Your task to perform on an android device: uninstall "Facebook Lite" Image 0: 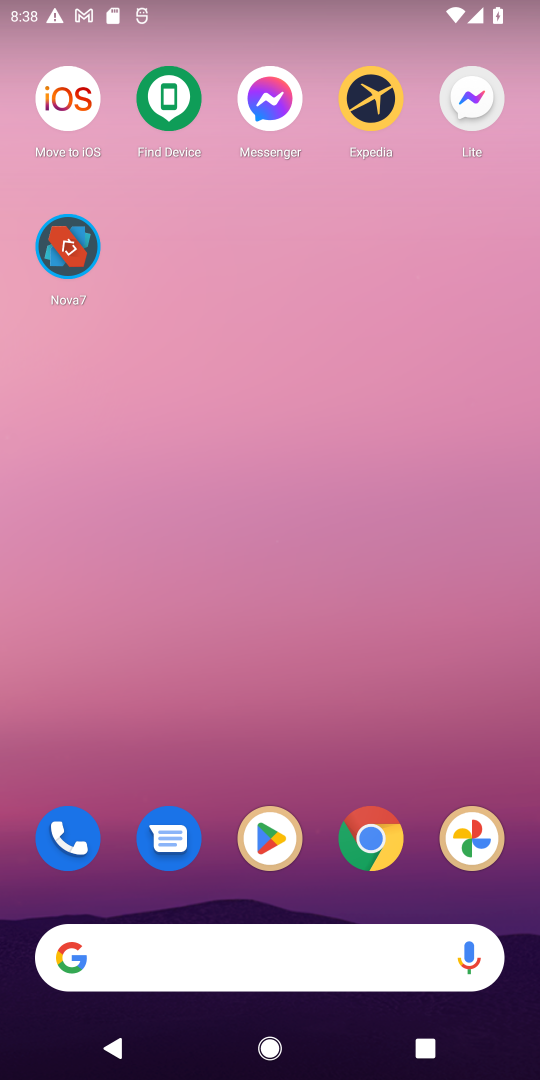
Step 0: press home button
Your task to perform on an android device: uninstall "Facebook Lite" Image 1: 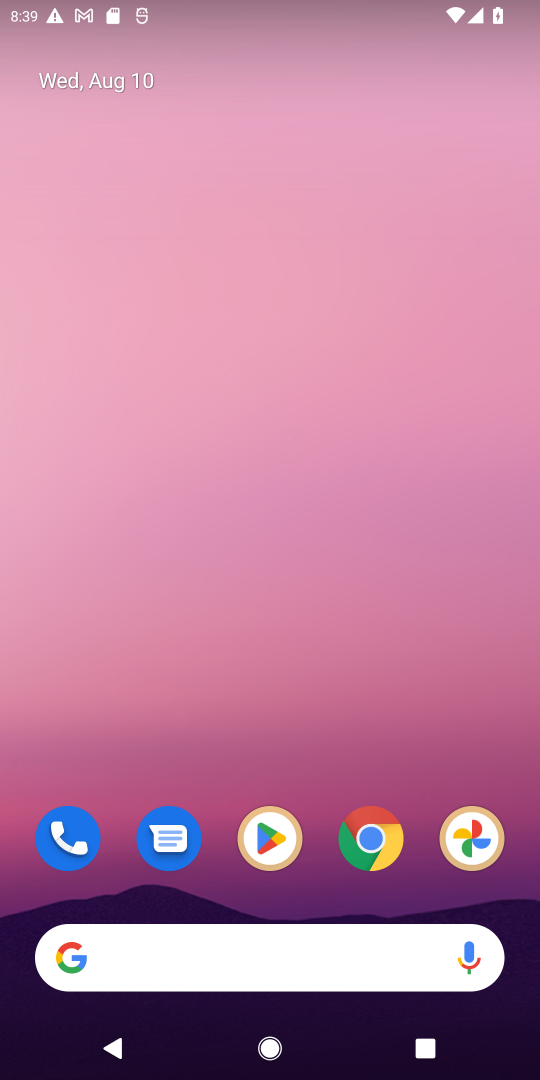
Step 1: click (265, 830)
Your task to perform on an android device: uninstall "Facebook Lite" Image 2: 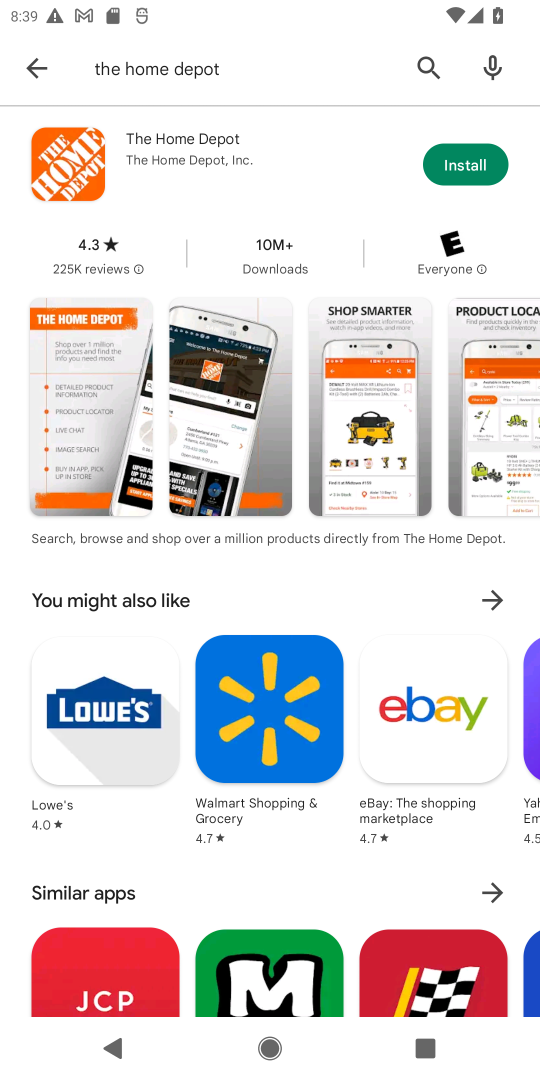
Step 2: click (422, 61)
Your task to perform on an android device: uninstall "Facebook Lite" Image 3: 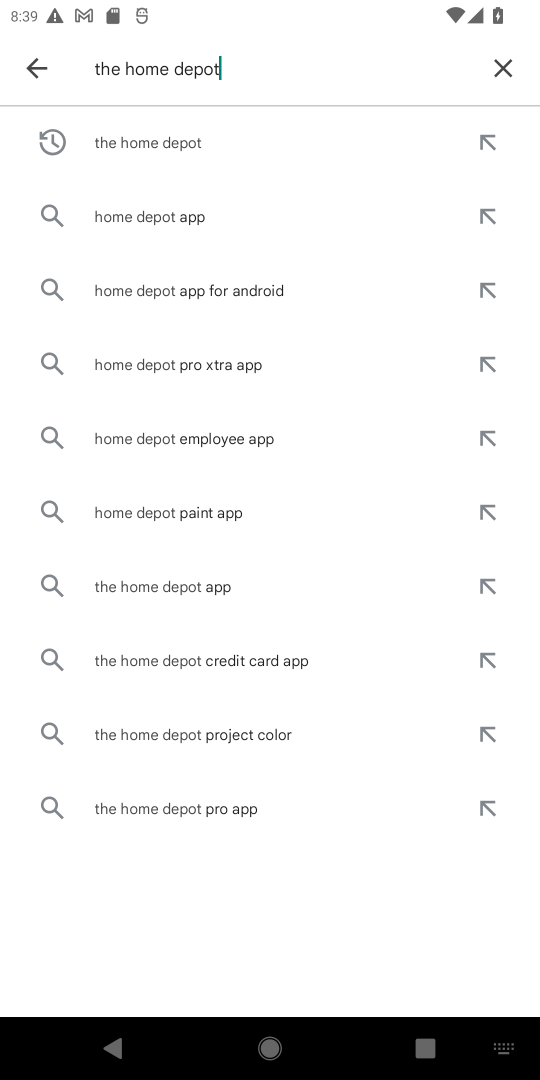
Step 3: click (504, 67)
Your task to perform on an android device: uninstall "Facebook Lite" Image 4: 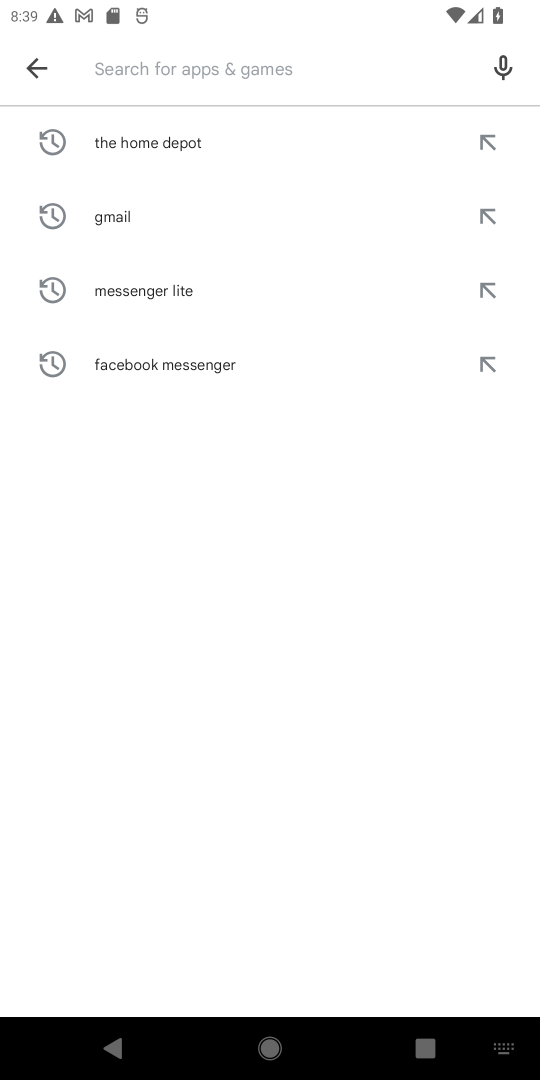
Step 4: type "Facebook Lite"
Your task to perform on an android device: uninstall "Facebook Lite" Image 5: 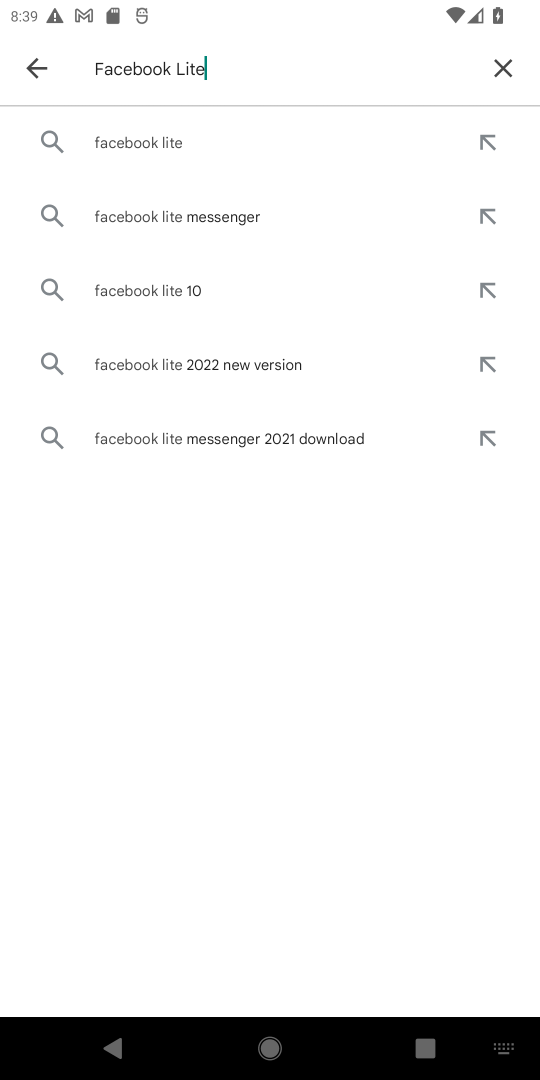
Step 5: click (202, 134)
Your task to perform on an android device: uninstall "Facebook Lite" Image 6: 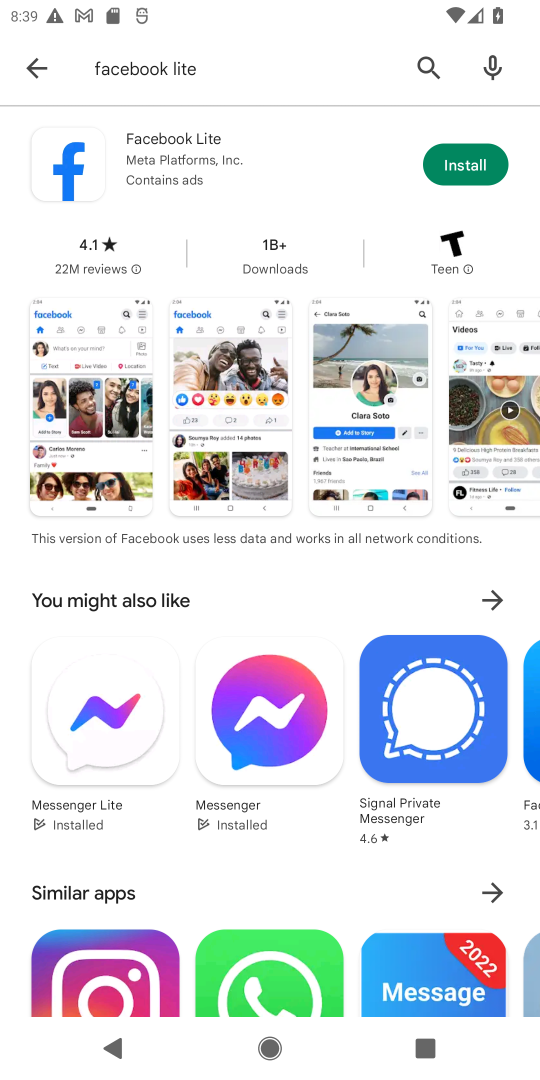
Step 6: task complete